Your task to perform on an android device: Search for Mexican restaurants on Maps Image 0: 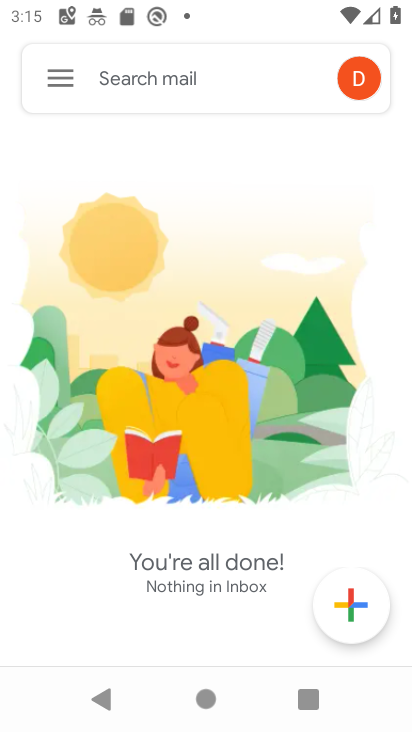
Step 0: press home button
Your task to perform on an android device: Search for Mexican restaurants on Maps Image 1: 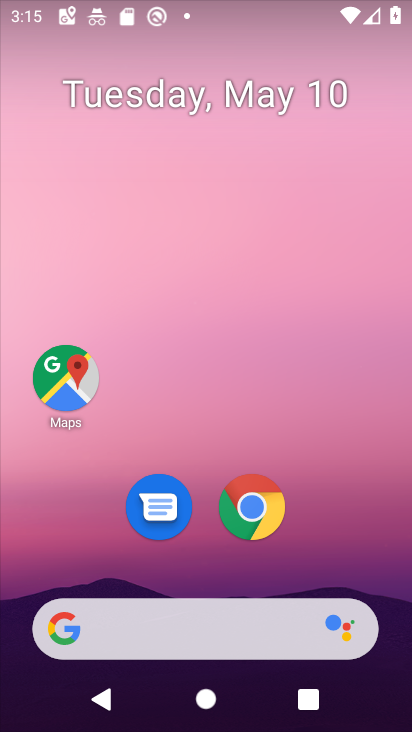
Step 1: click (59, 388)
Your task to perform on an android device: Search for Mexican restaurants on Maps Image 2: 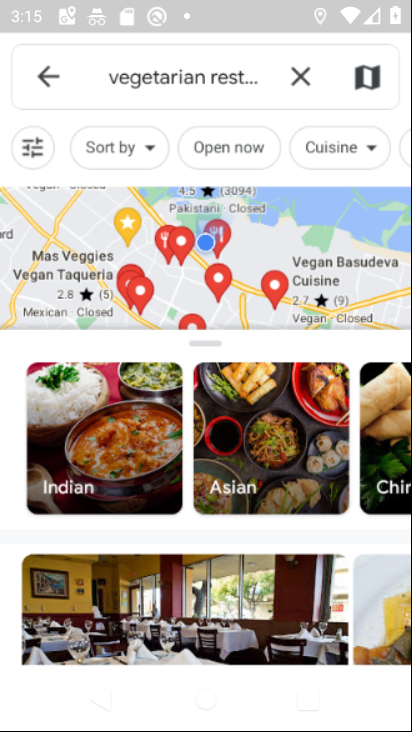
Step 2: click (291, 84)
Your task to perform on an android device: Search for Mexican restaurants on Maps Image 3: 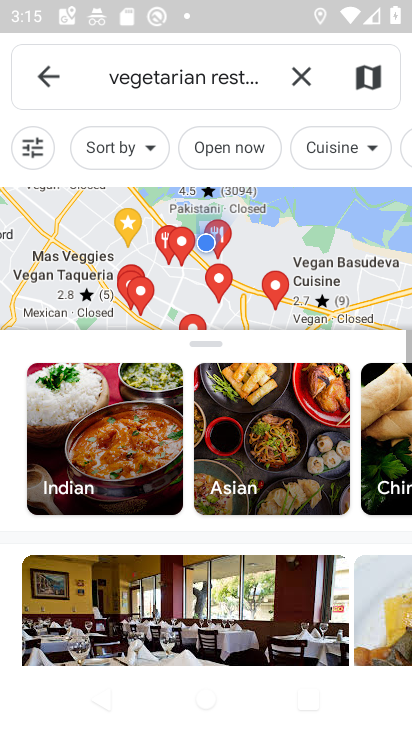
Step 3: click (294, 69)
Your task to perform on an android device: Search for Mexican restaurants on Maps Image 4: 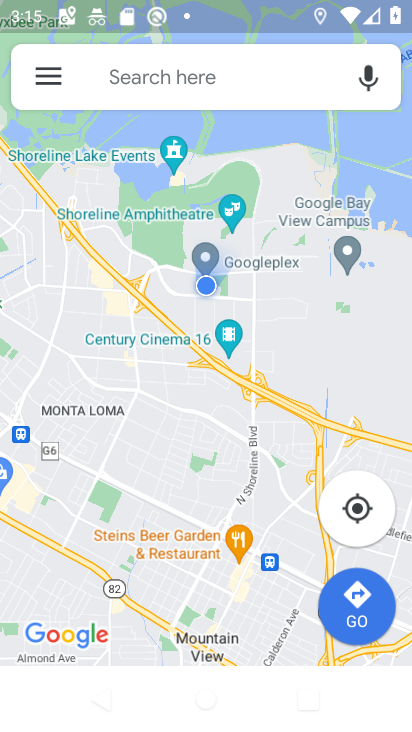
Step 4: click (131, 78)
Your task to perform on an android device: Search for Mexican restaurants on Maps Image 5: 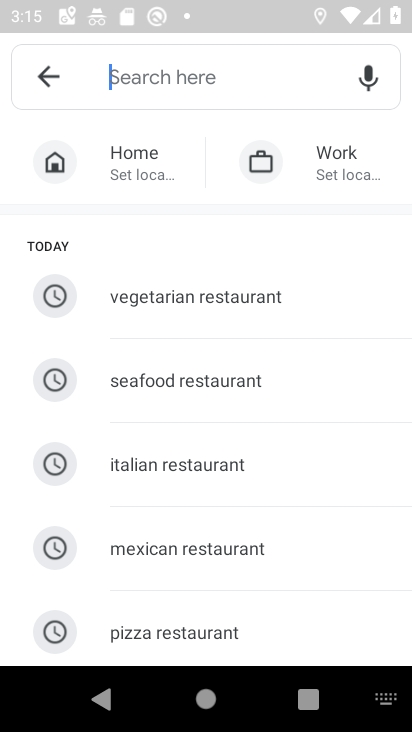
Step 5: type "Mexican restaurants "
Your task to perform on an android device: Search for Mexican restaurants on Maps Image 6: 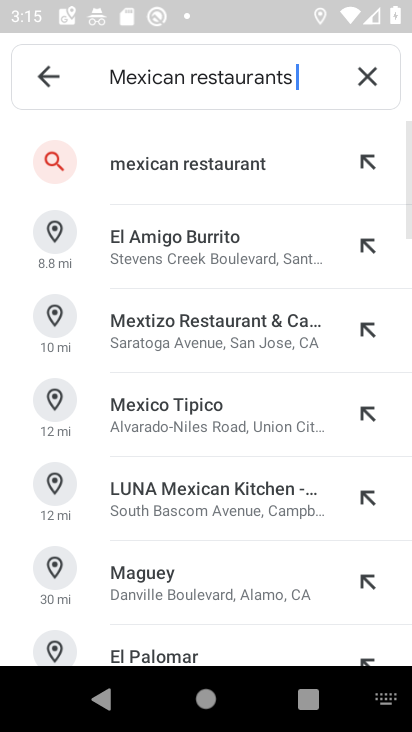
Step 6: click (176, 164)
Your task to perform on an android device: Search for Mexican restaurants on Maps Image 7: 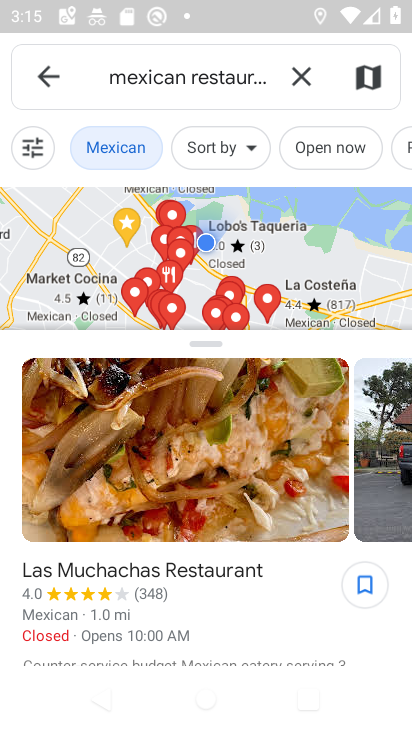
Step 7: task complete